Your task to perform on an android device: delete the emails in spam in the gmail app Image 0: 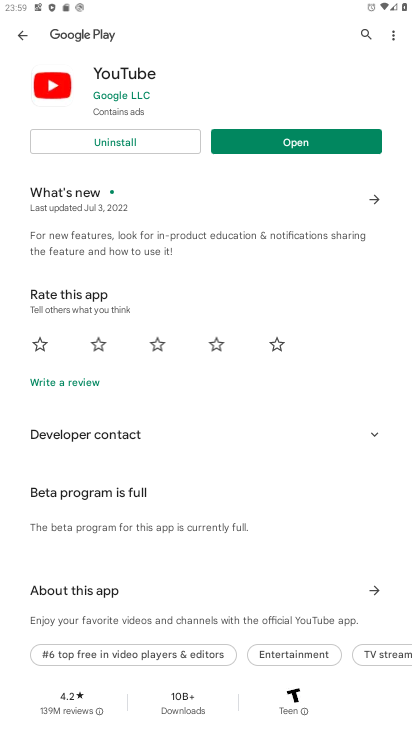
Step 0: press home button
Your task to perform on an android device: delete the emails in spam in the gmail app Image 1: 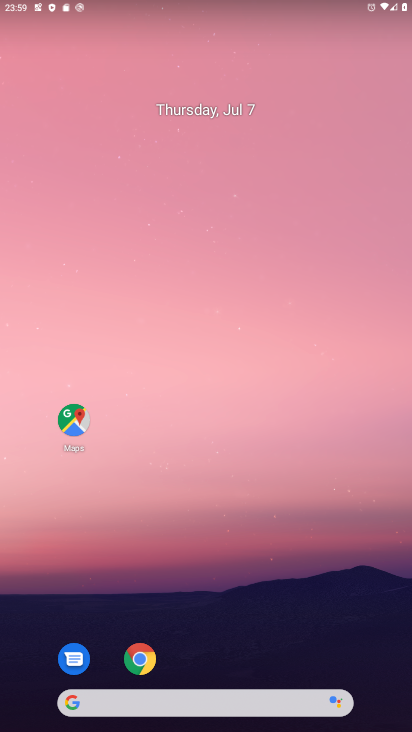
Step 1: drag from (195, 665) to (145, 4)
Your task to perform on an android device: delete the emails in spam in the gmail app Image 2: 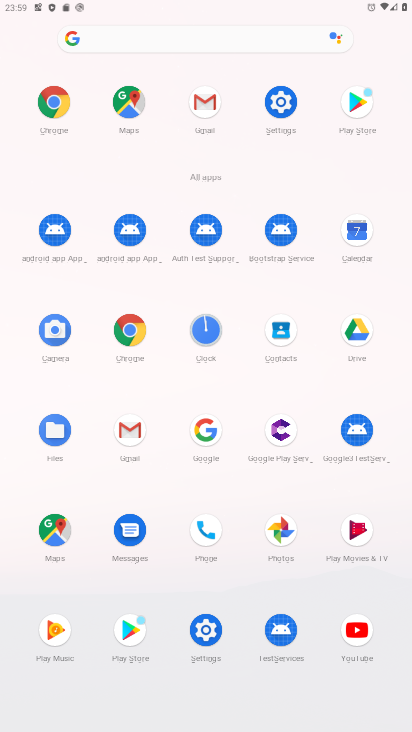
Step 2: click (200, 111)
Your task to perform on an android device: delete the emails in spam in the gmail app Image 3: 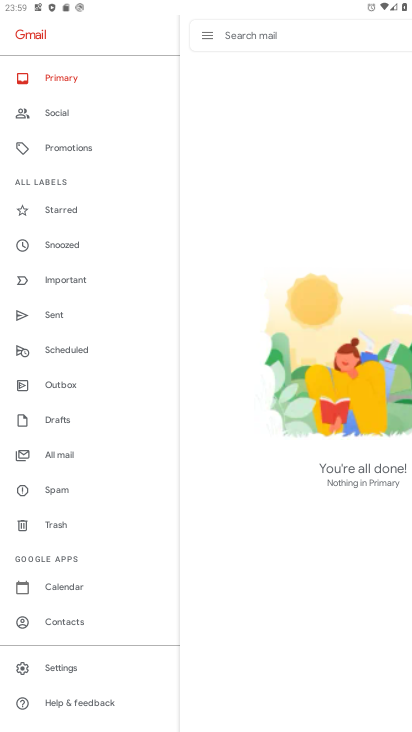
Step 3: click (66, 494)
Your task to perform on an android device: delete the emails in spam in the gmail app Image 4: 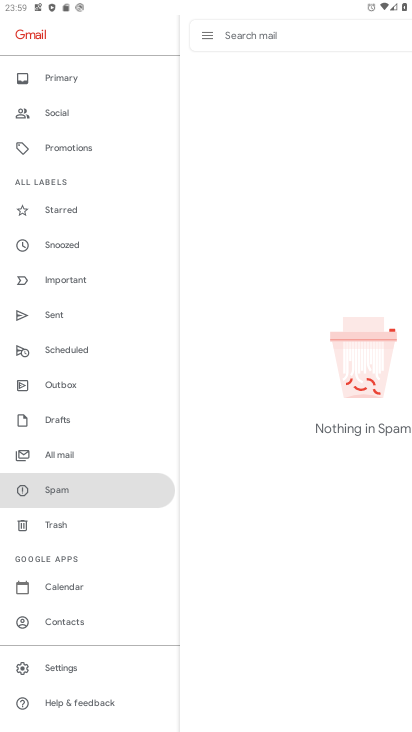
Step 4: task complete